Your task to perform on an android device: Open the calendar app, open the side menu, and click the "Day" option Image 0: 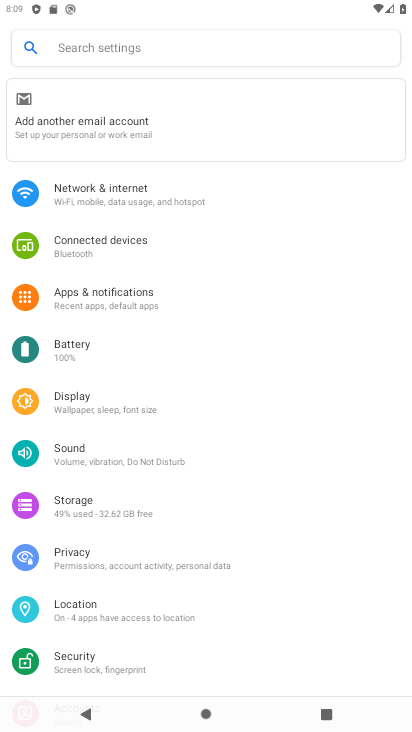
Step 0: press home button
Your task to perform on an android device: Open the calendar app, open the side menu, and click the "Day" option Image 1: 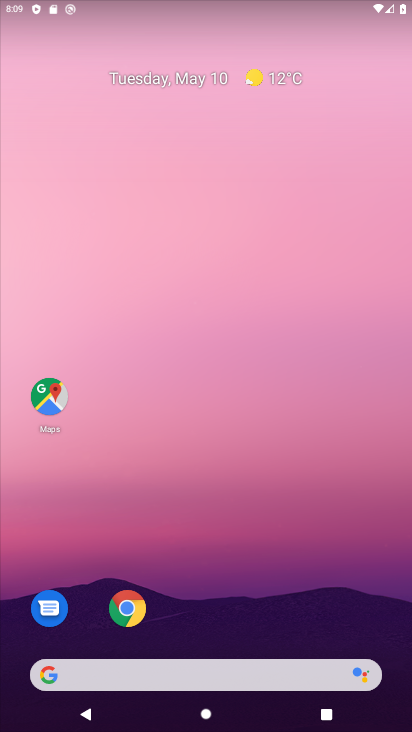
Step 1: drag from (199, 675) to (172, 153)
Your task to perform on an android device: Open the calendar app, open the side menu, and click the "Day" option Image 2: 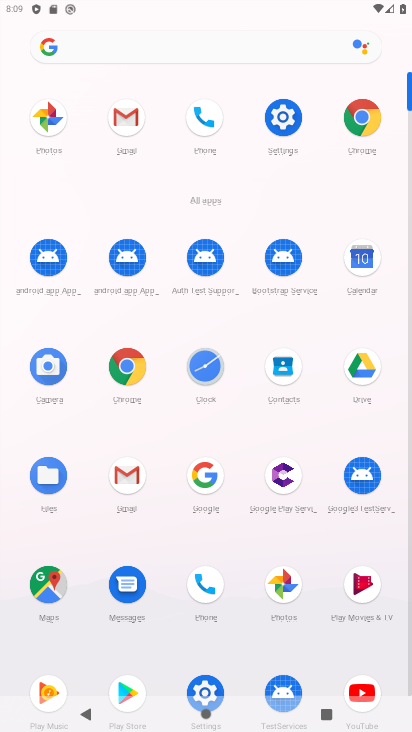
Step 2: click (372, 266)
Your task to perform on an android device: Open the calendar app, open the side menu, and click the "Day" option Image 3: 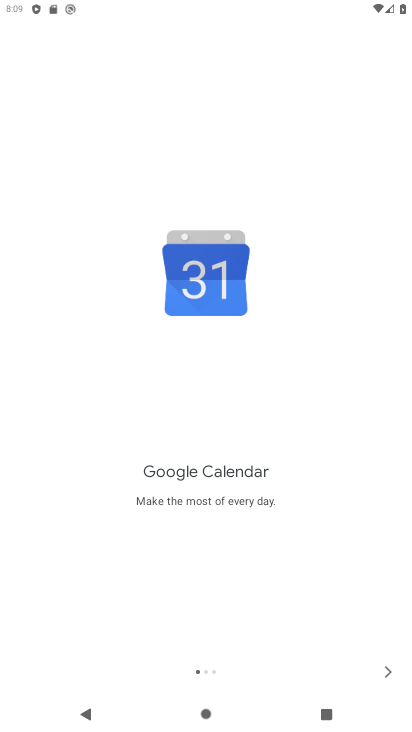
Step 3: click (389, 668)
Your task to perform on an android device: Open the calendar app, open the side menu, and click the "Day" option Image 4: 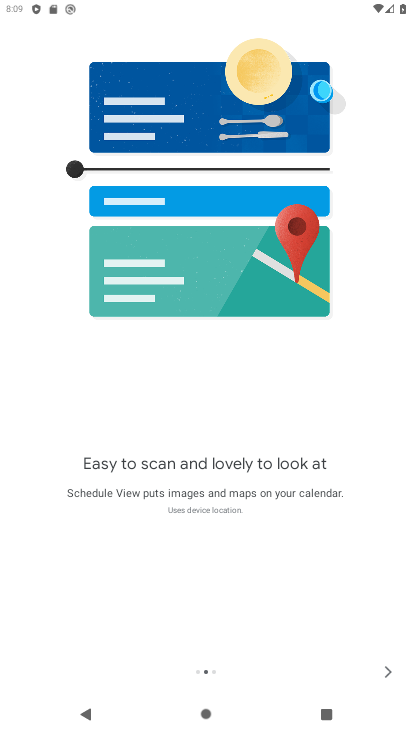
Step 4: click (389, 668)
Your task to perform on an android device: Open the calendar app, open the side menu, and click the "Day" option Image 5: 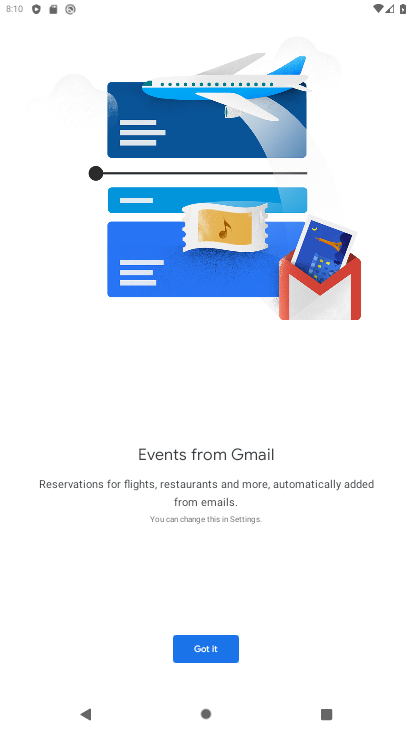
Step 5: click (211, 649)
Your task to perform on an android device: Open the calendar app, open the side menu, and click the "Day" option Image 6: 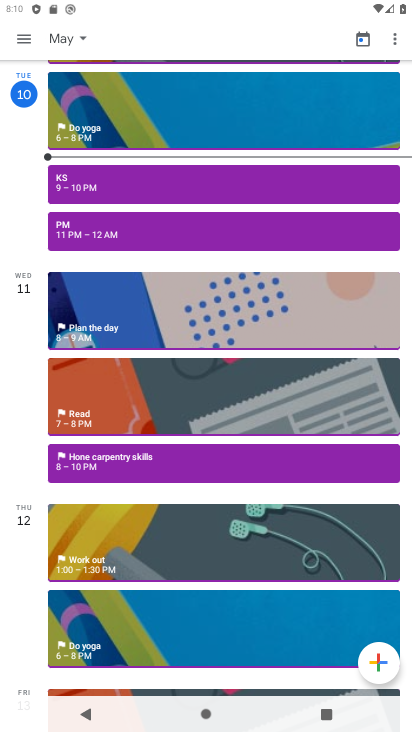
Step 6: click (29, 35)
Your task to perform on an android device: Open the calendar app, open the side menu, and click the "Day" option Image 7: 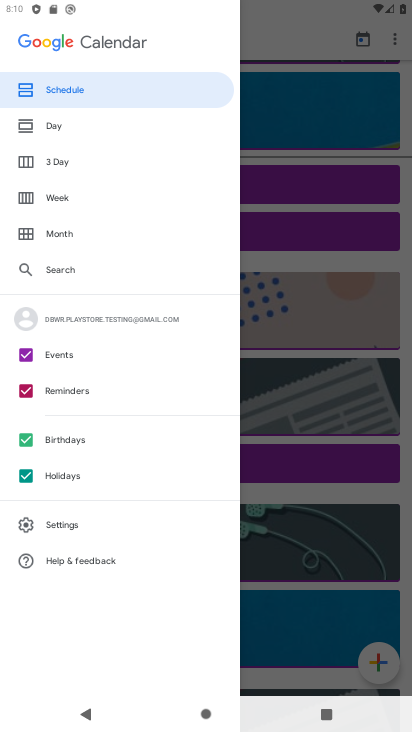
Step 7: click (79, 123)
Your task to perform on an android device: Open the calendar app, open the side menu, and click the "Day" option Image 8: 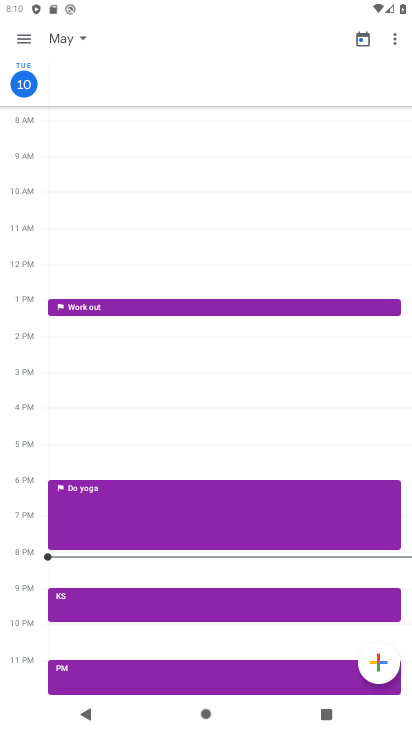
Step 8: task complete